Your task to perform on an android device: open device folders in google photos Image 0: 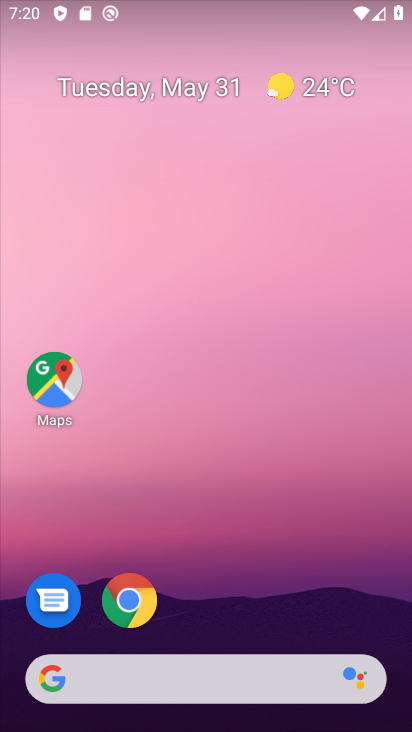
Step 0: drag from (287, 221) to (310, 178)
Your task to perform on an android device: open device folders in google photos Image 1: 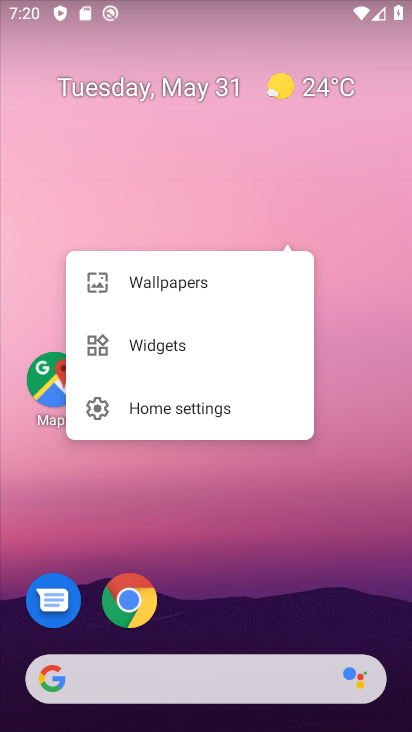
Step 1: drag from (189, 686) to (300, 143)
Your task to perform on an android device: open device folders in google photos Image 2: 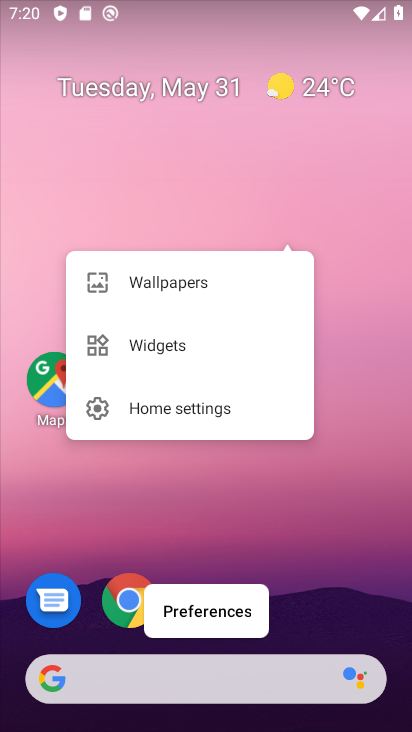
Step 2: drag from (204, 669) to (344, 215)
Your task to perform on an android device: open device folders in google photos Image 3: 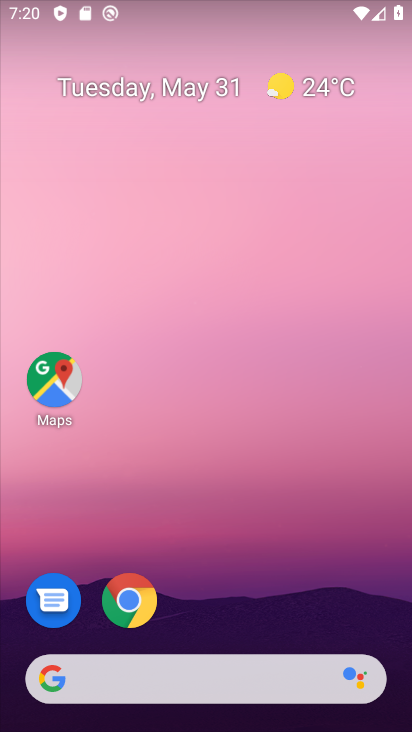
Step 3: press home button
Your task to perform on an android device: open device folders in google photos Image 4: 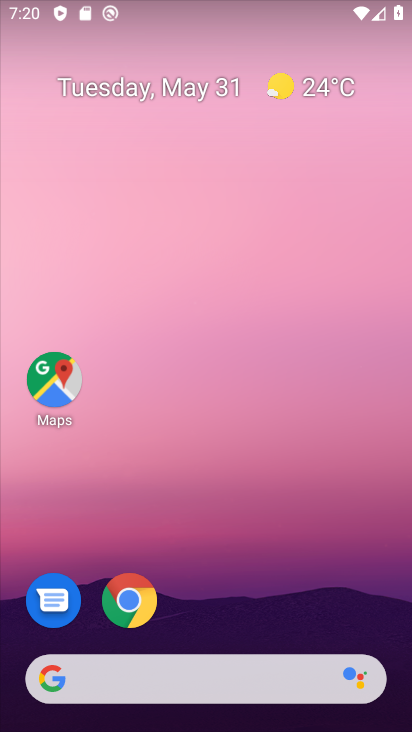
Step 4: drag from (171, 686) to (291, 189)
Your task to perform on an android device: open device folders in google photos Image 5: 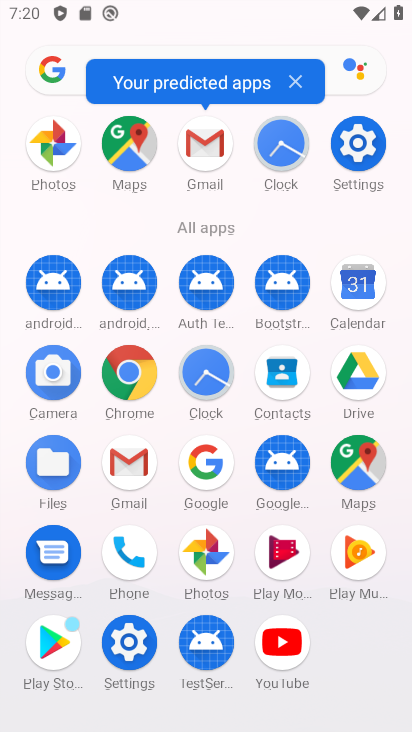
Step 5: click (212, 552)
Your task to perform on an android device: open device folders in google photos Image 6: 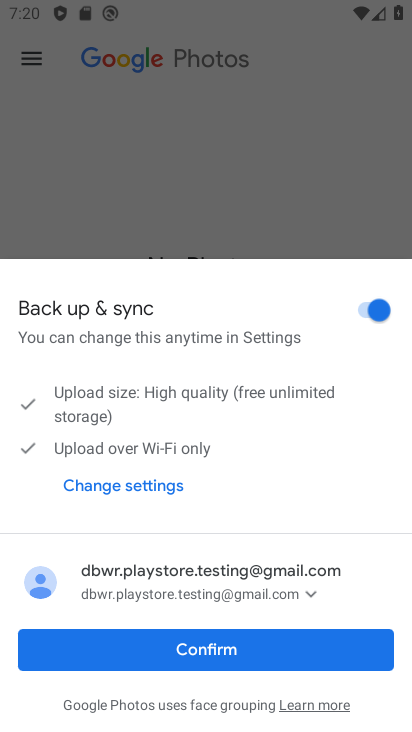
Step 6: click (224, 650)
Your task to perform on an android device: open device folders in google photos Image 7: 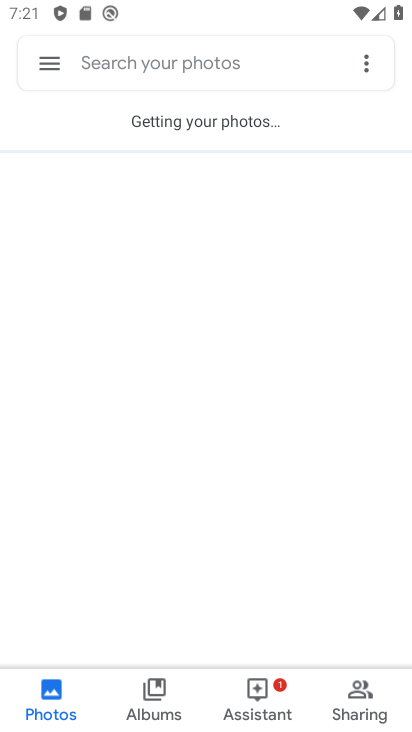
Step 7: click (60, 58)
Your task to perform on an android device: open device folders in google photos Image 8: 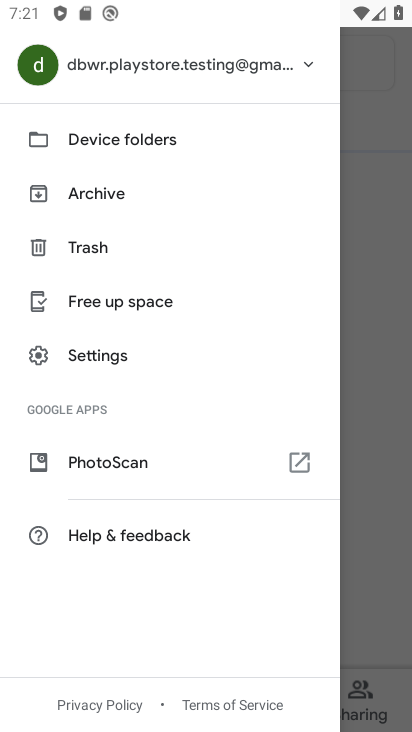
Step 8: click (107, 141)
Your task to perform on an android device: open device folders in google photos Image 9: 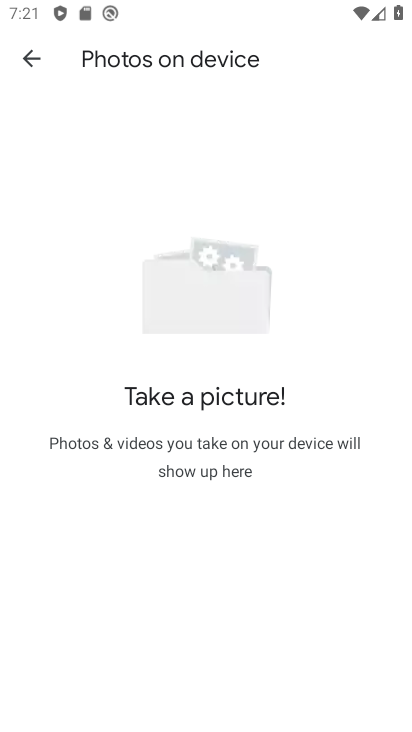
Step 9: task complete